Your task to perform on an android device: open wifi settings Image 0: 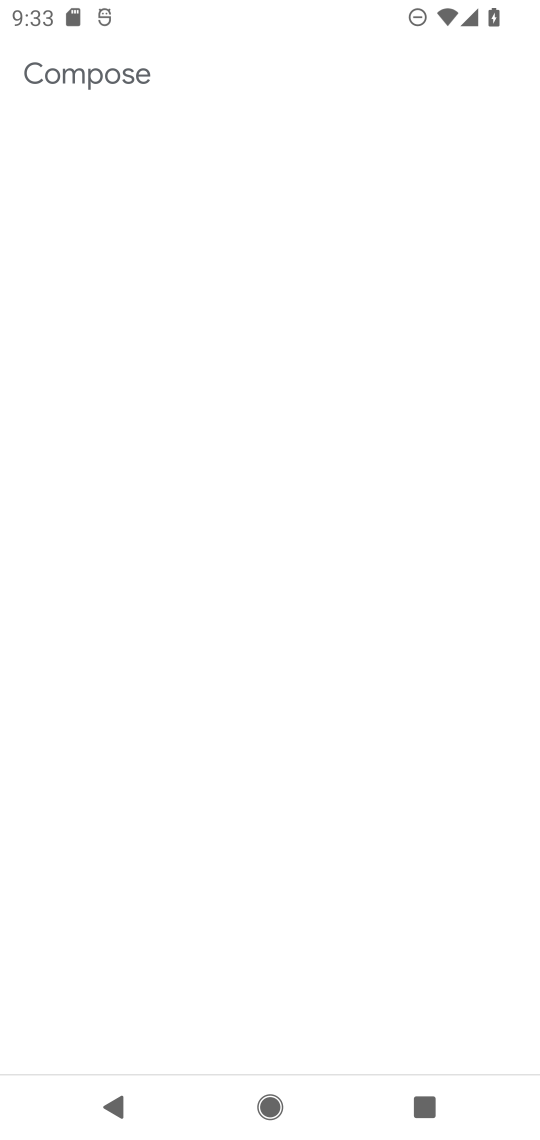
Step 0: press home button
Your task to perform on an android device: open wifi settings Image 1: 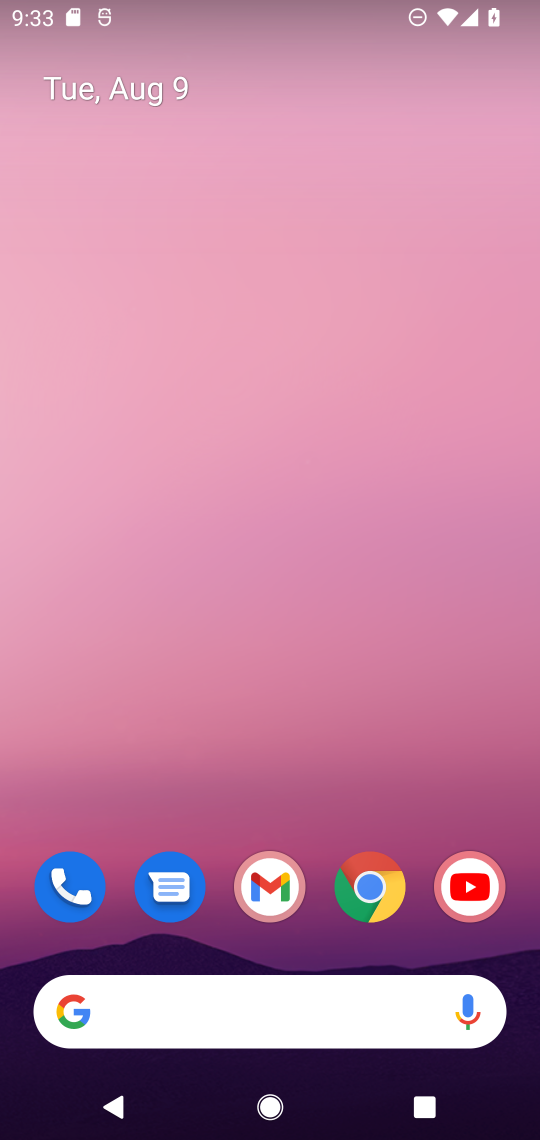
Step 1: drag from (279, 762) to (279, 303)
Your task to perform on an android device: open wifi settings Image 2: 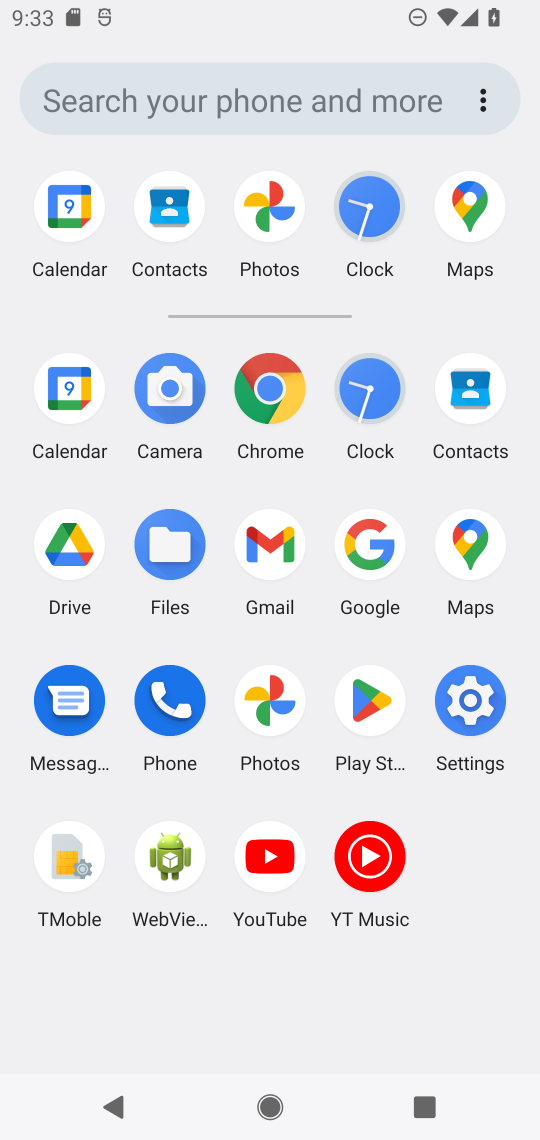
Step 2: click (441, 686)
Your task to perform on an android device: open wifi settings Image 3: 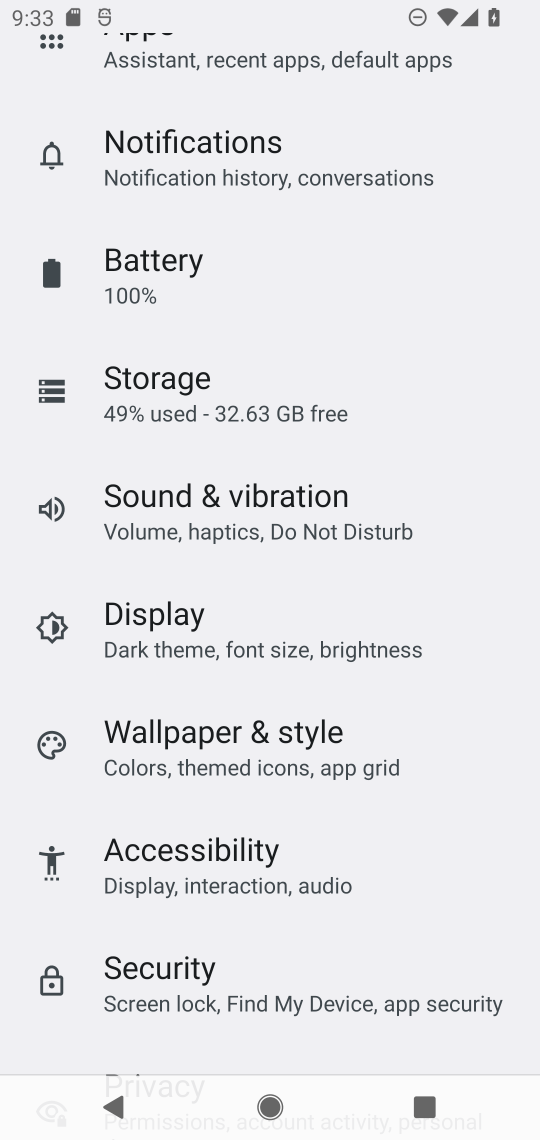
Step 3: drag from (284, 388) to (304, 940)
Your task to perform on an android device: open wifi settings Image 4: 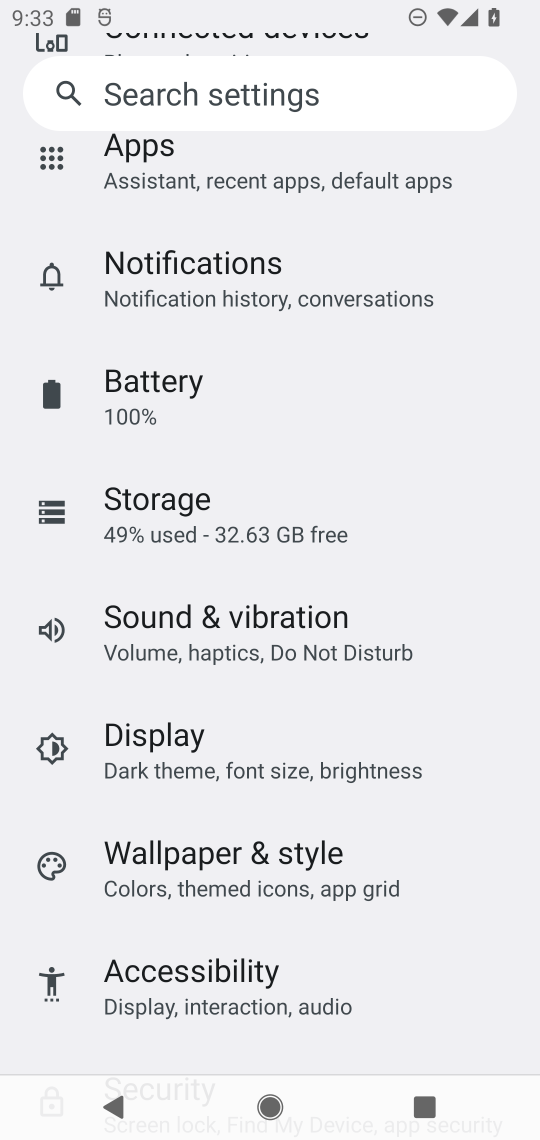
Step 4: drag from (187, 299) to (200, 805)
Your task to perform on an android device: open wifi settings Image 5: 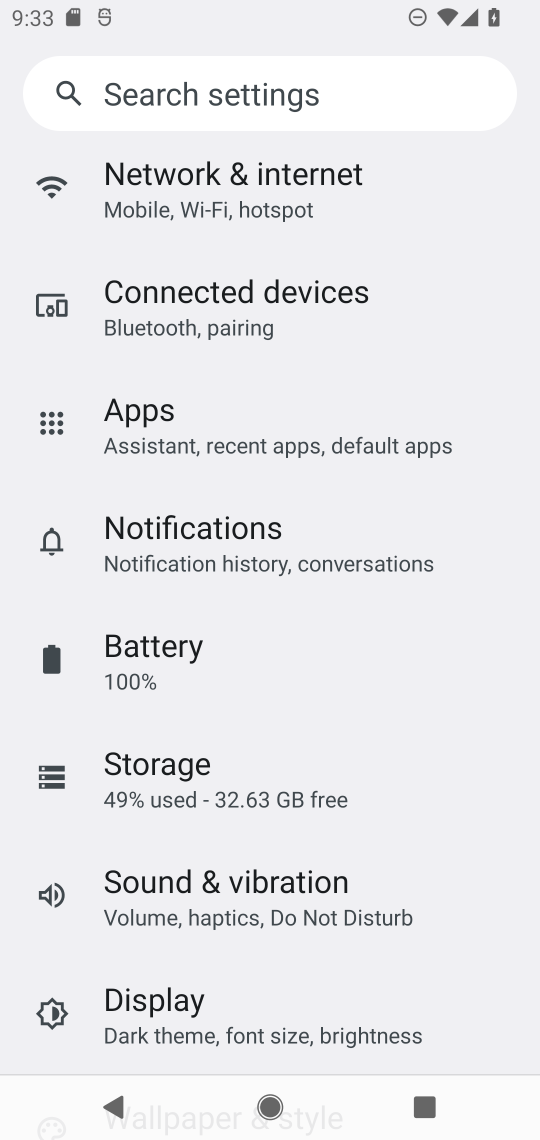
Step 5: drag from (257, 392) to (299, 955)
Your task to perform on an android device: open wifi settings Image 6: 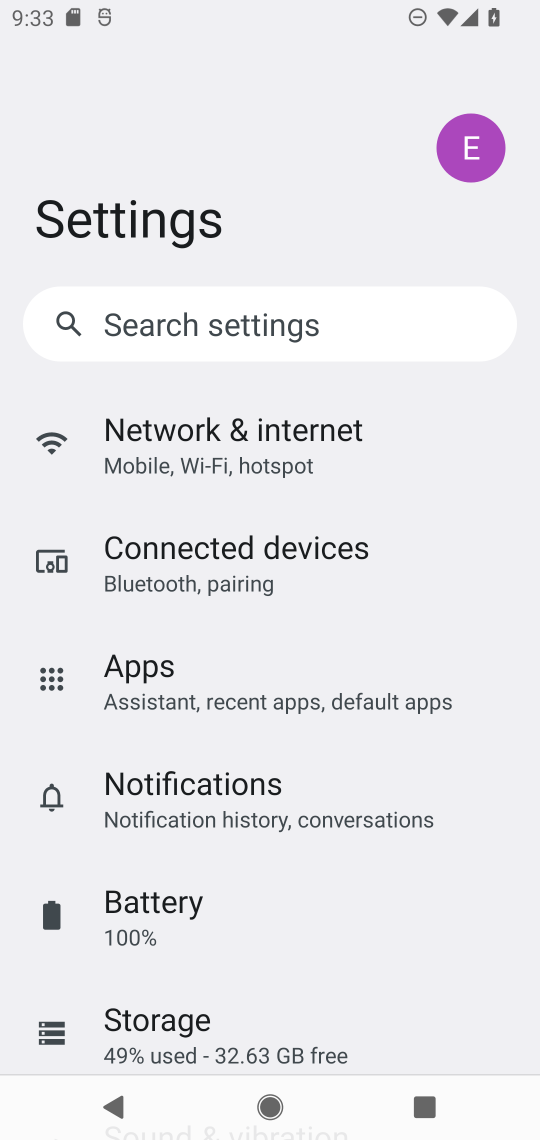
Step 6: click (238, 419)
Your task to perform on an android device: open wifi settings Image 7: 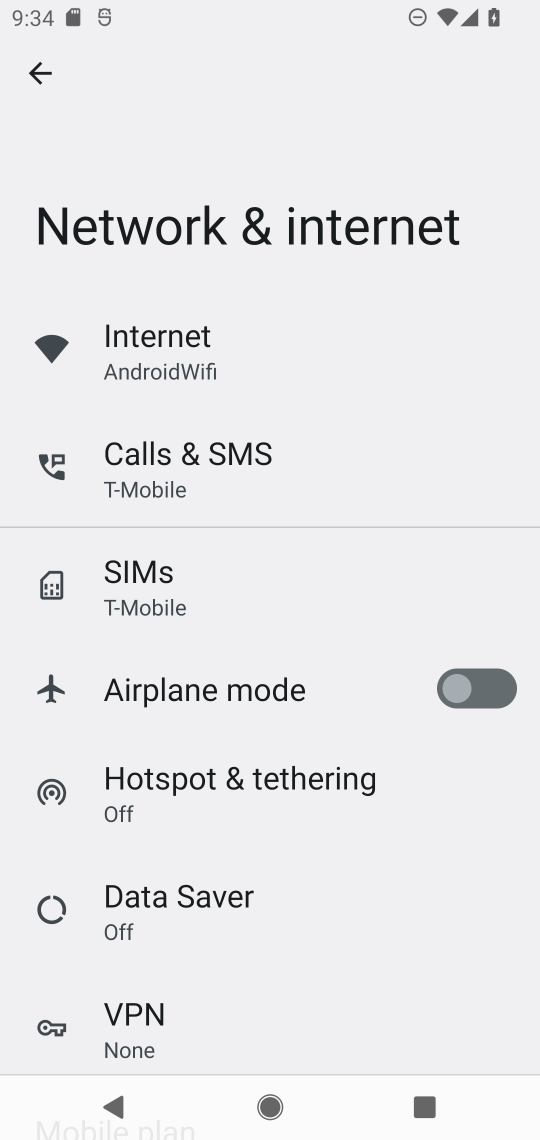
Step 7: task complete